Your task to perform on an android device: see creations saved in the google photos Image 0: 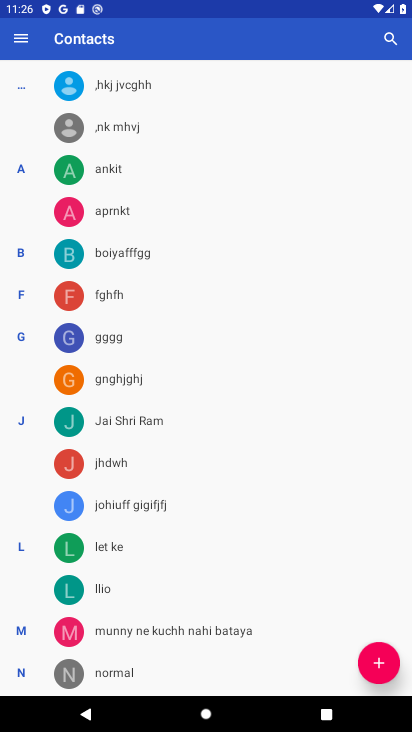
Step 0: press home button
Your task to perform on an android device: see creations saved in the google photos Image 1: 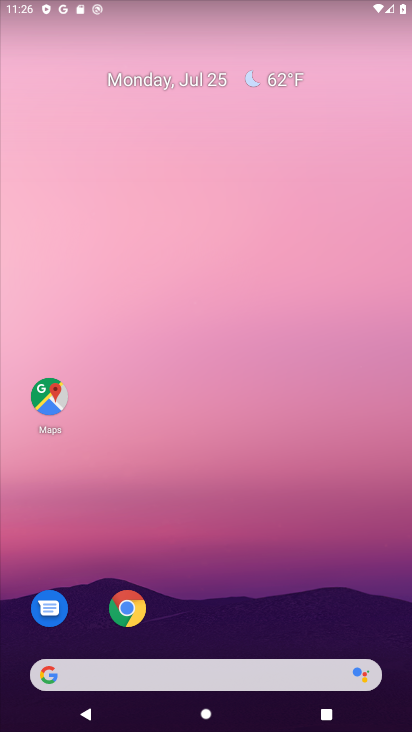
Step 1: drag from (326, 574) to (315, 285)
Your task to perform on an android device: see creations saved in the google photos Image 2: 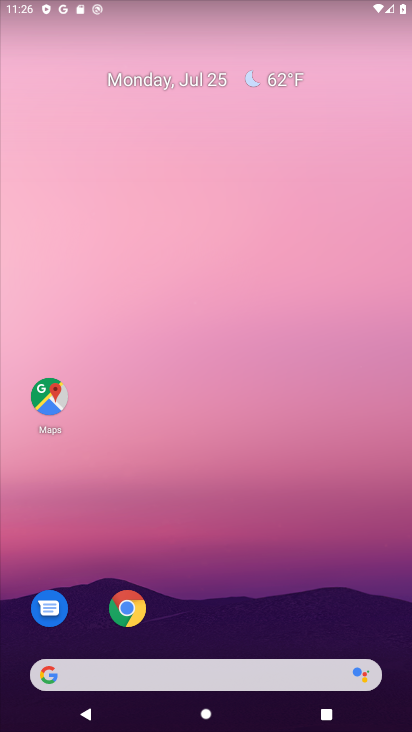
Step 2: drag from (263, 582) to (310, 163)
Your task to perform on an android device: see creations saved in the google photos Image 3: 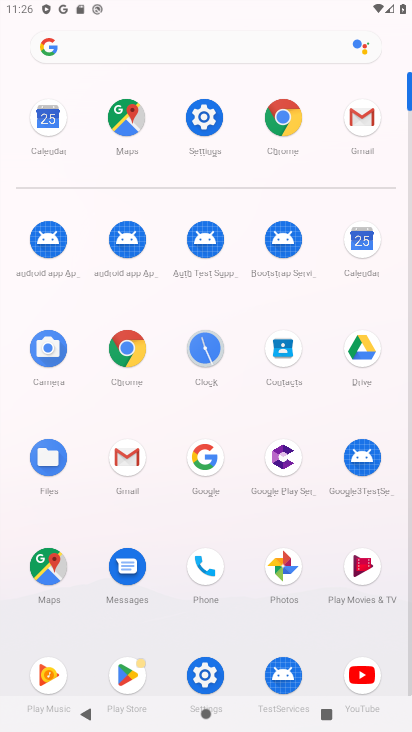
Step 3: click (287, 572)
Your task to perform on an android device: see creations saved in the google photos Image 4: 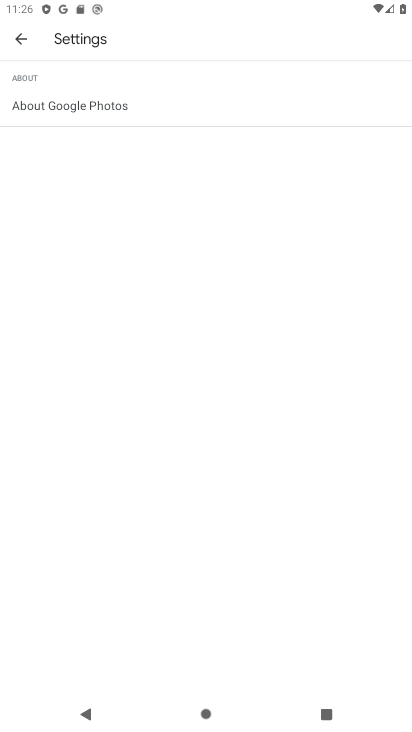
Step 4: click (18, 37)
Your task to perform on an android device: see creations saved in the google photos Image 5: 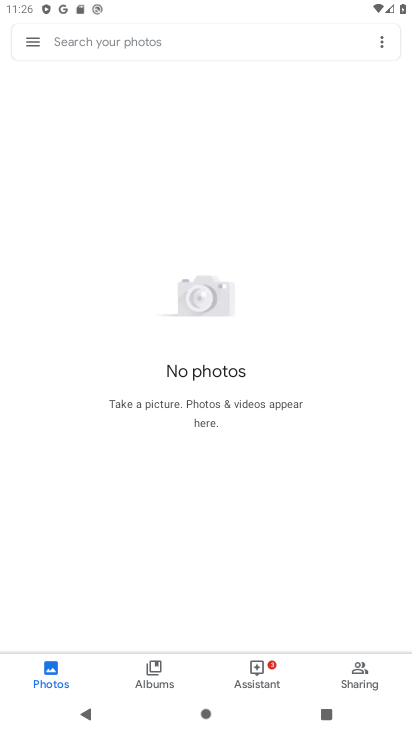
Step 5: task complete